Your task to perform on an android device: Open privacy settings Image 0: 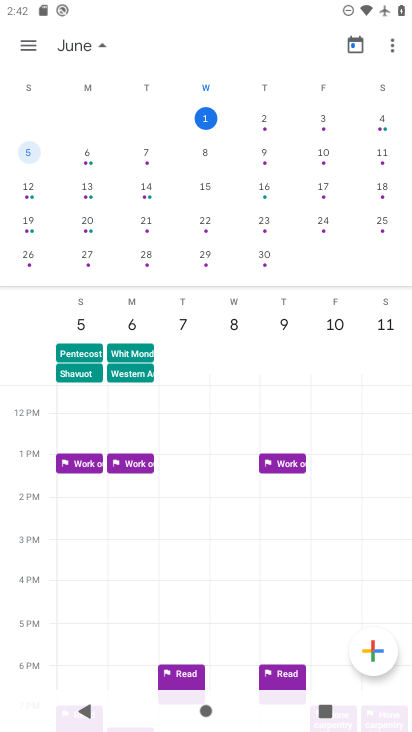
Step 0: press home button
Your task to perform on an android device: Open privacy settings Image 1: 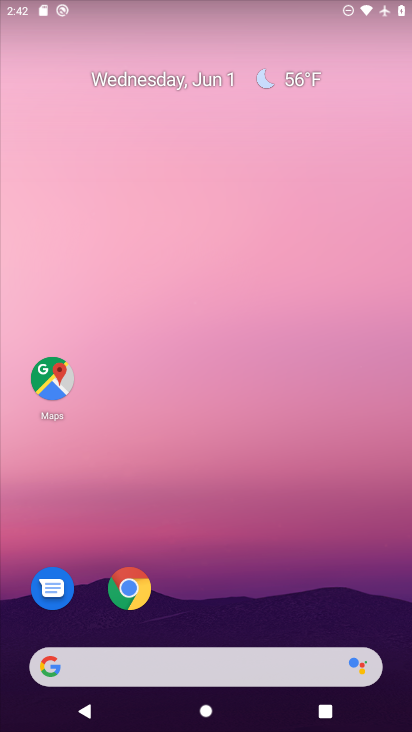
Step 1: drag from (310, 545) to (224, 28)
Your task to perform on an android device: Open privacy settings Image 2: 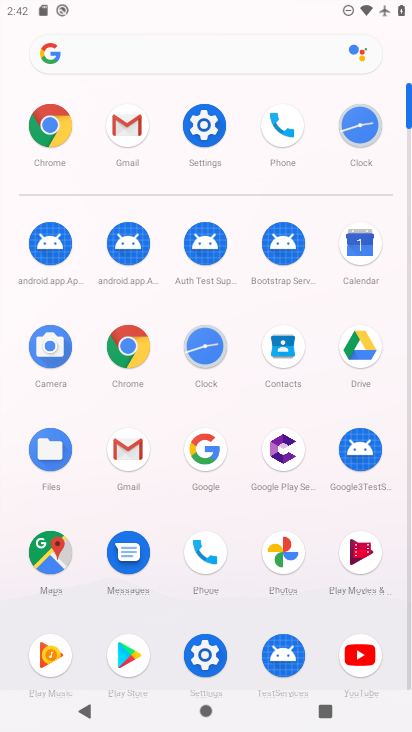
Step 2: click (203, 122)
Your task to perform on an android device: Open privacy settings Image 3: 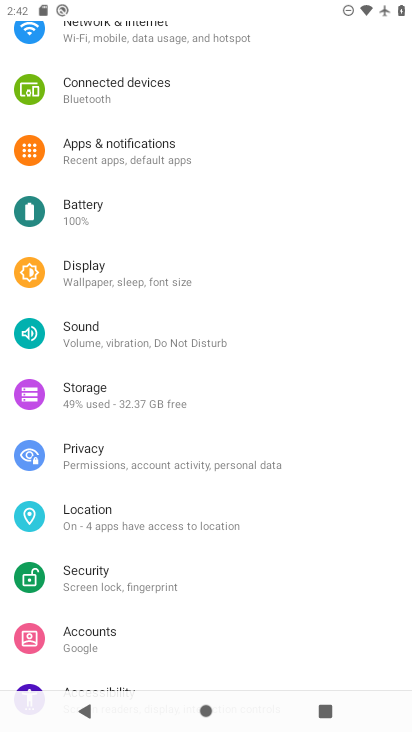
Step 3: click (159, 472)
Your task to perform on an android device: Open privacy settings Image 4: 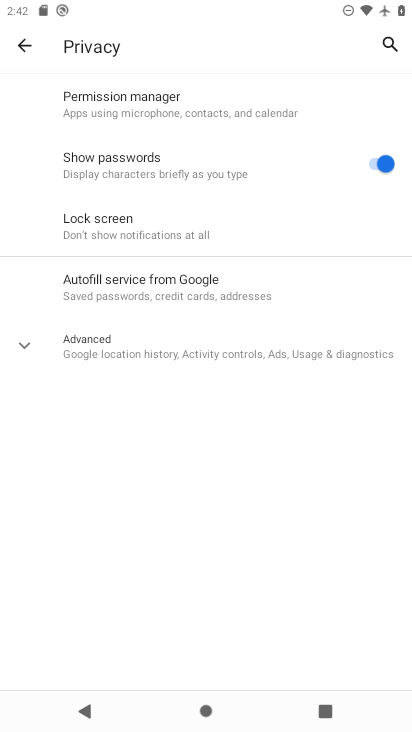
Step 4: task complete